Your task to perform on an android device: Show me the alarms in the clock app Image 0: 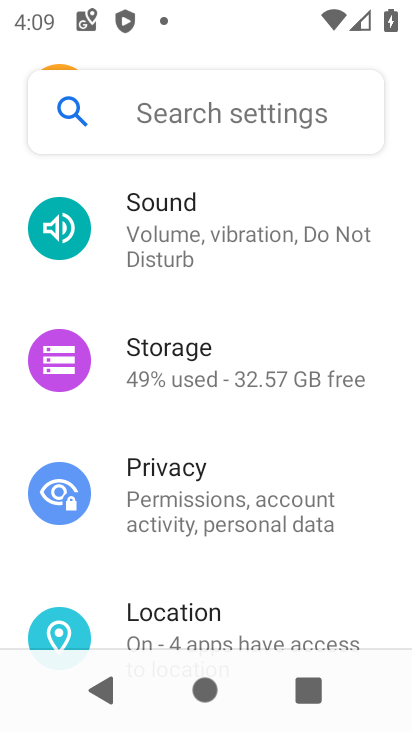
Step 0: task complete